Your task to perform on an android device: Go to Amazon Image 0: 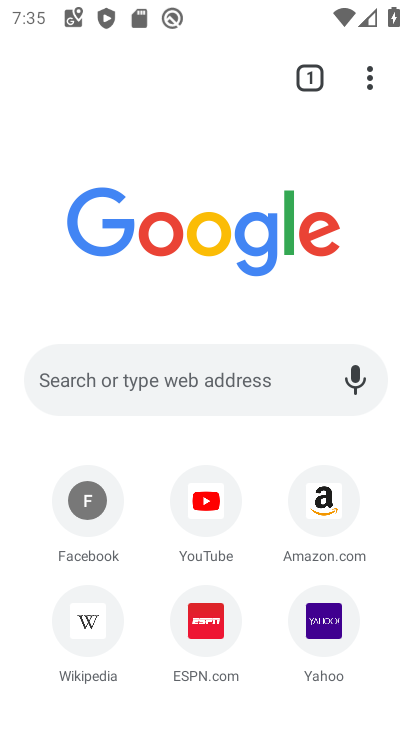
Step 0: click (331, 509)
Your task to perform on an android device: Go to Amazon Image 1: 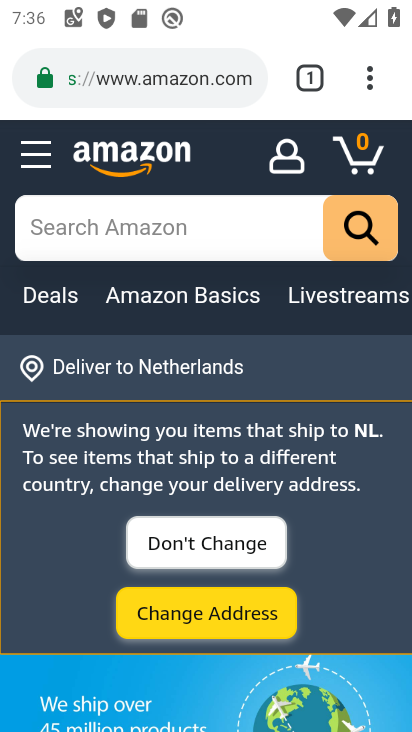
Step 1: task complete